Your task to perform on an android device: Is it going to rain this weekend? Image 0: 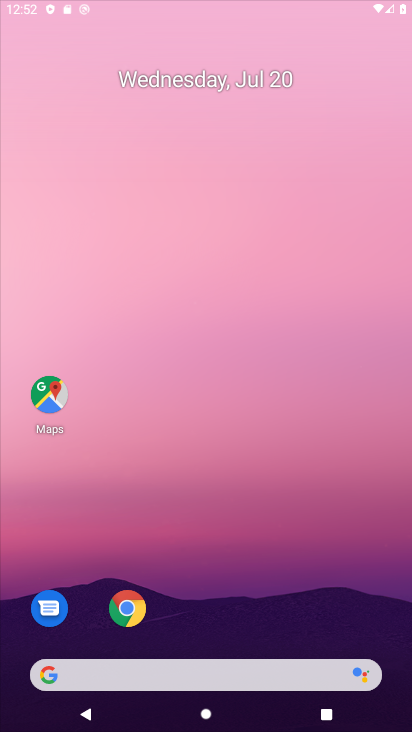
Step 0: drag from (243, 55) to (7, 177)
Your task to perform on an android device: Is it going to rain this weekend? Image 1: 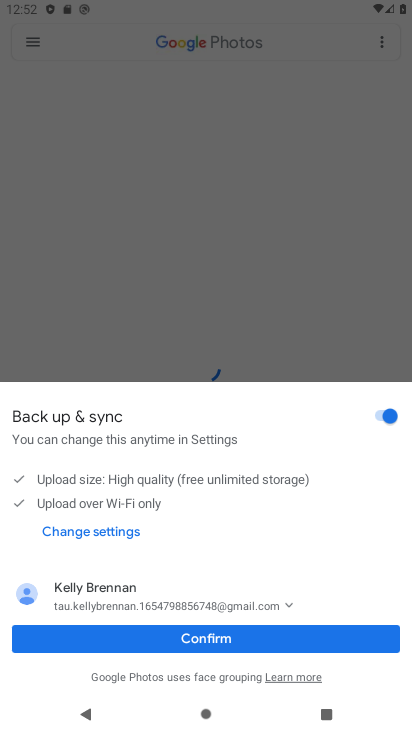
Step 1: press home button
Your task to perform on an android device: Is it going to rain this weekend? Image 2: 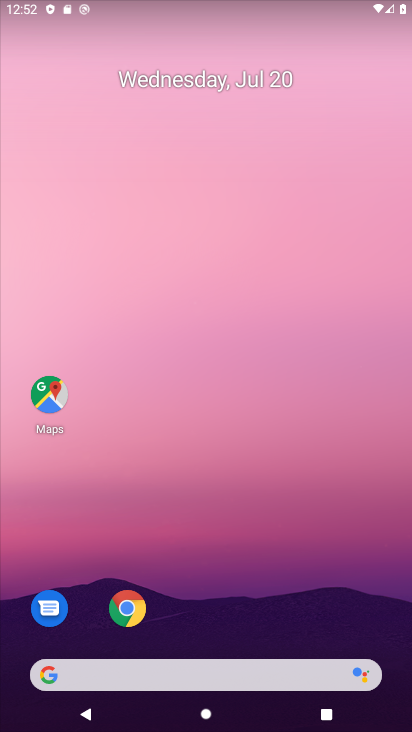
Step 2: drag from (283, 586) to (138, 32)
Your task to perform on an android device: Is it going to rain this weekend? Image 3: 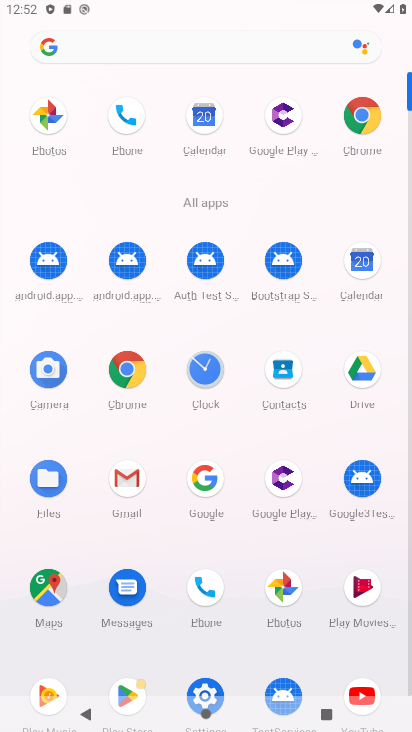
Step 3: click (205, 479)
Your task to perform on an android device: Is it going to rain this weekend? Image 4: 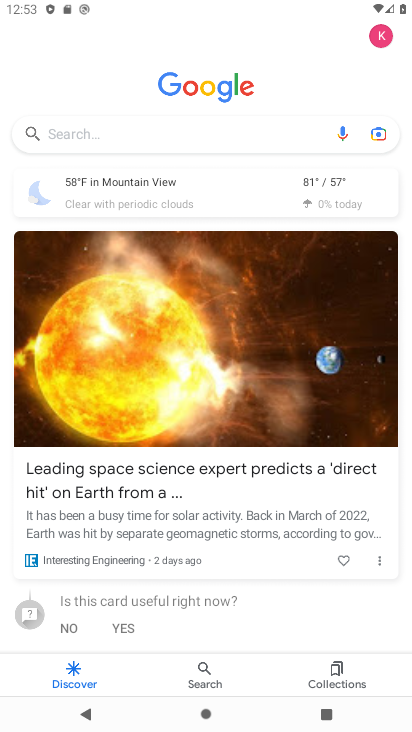
Step 4: click (273, 180)
Your task to perform on an android device: Is it going to rain this weekend? Image 5: 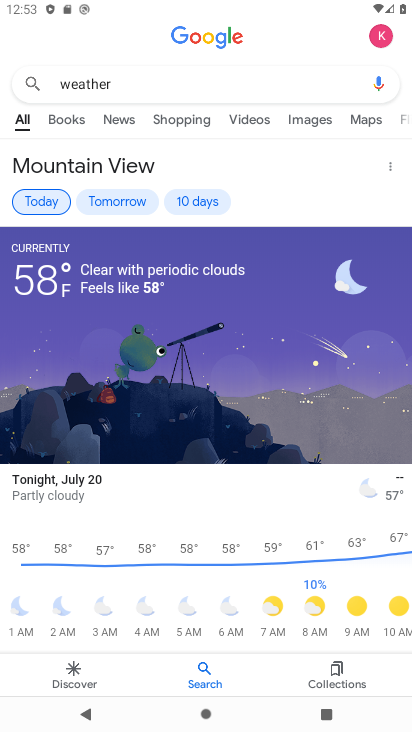
Step 5: task complete